Your task to perform on an android device: Do I have any events this weekend? Image 0: 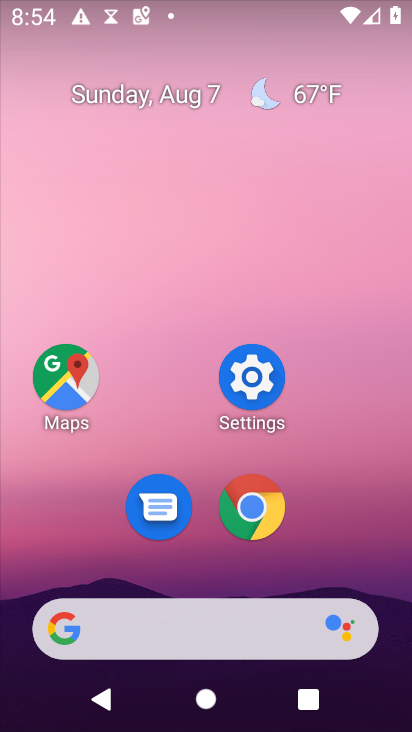
Step 0: drag from (202, 635) to (367, 42)
Your task to perform on an android device: Do I have any events this weekend? Image 1: 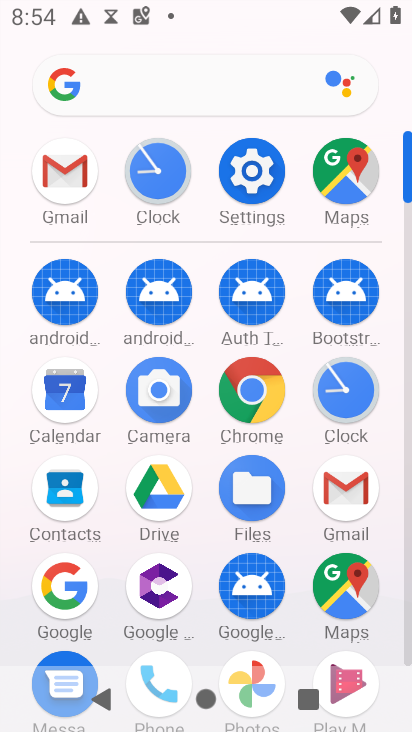
Step 1: click (65, 399)
Your task to perform on an android device: Do I have any events this weekend? Image 2: 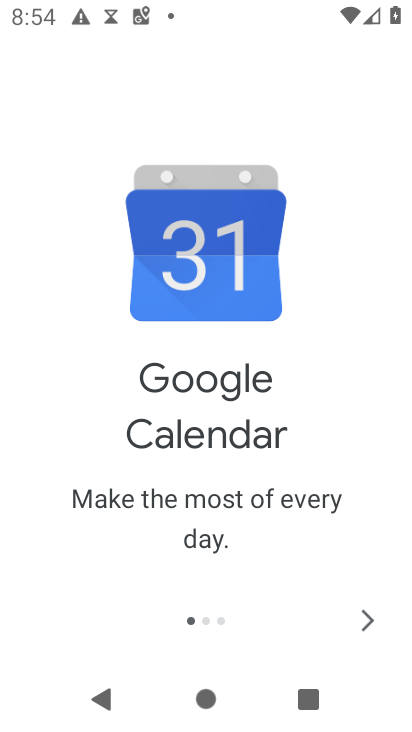
Step 2: click (365, 613)
Your task to perform on an android device: Do I have any events this weekend? Image 3: 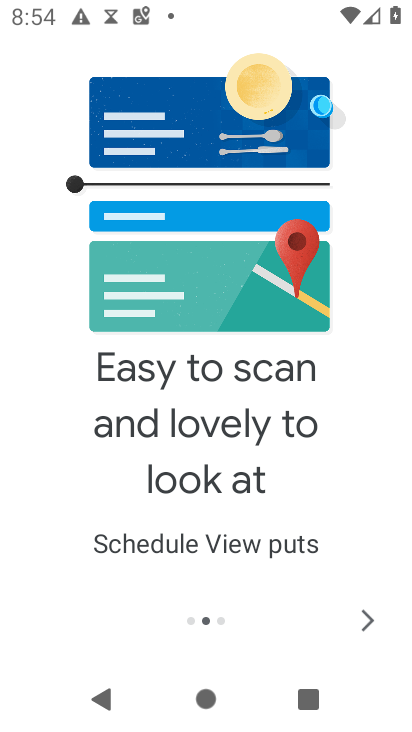
Step 3: click (365, 610)
Your task to perform on an android device: Do I have any events this weekend? Image 4: 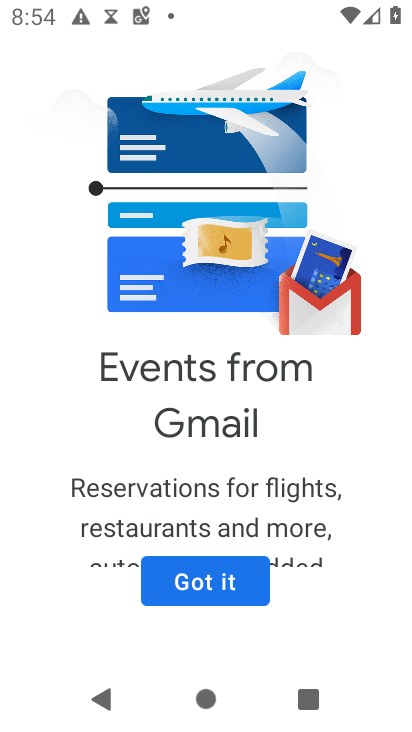
Step 4: click (238, 594)
Your task to perform on an android device: Do I have any events this weekend? Image 5: 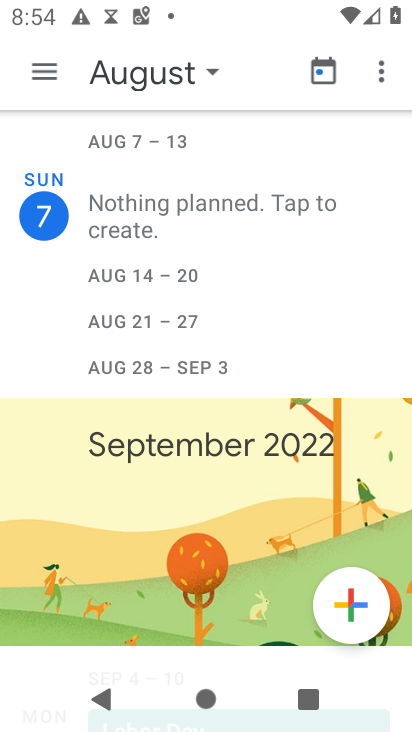
Step 5: click (134, 78)
Your task to perform on an android device: Do I have any events this weekend? Image 6: 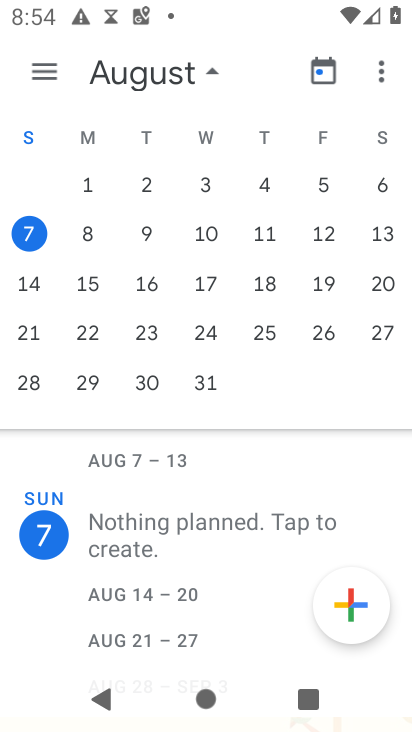
Step 6: click (381, 239)
Your task to perform on an android device: Do I have any events this weekend? Image 7: 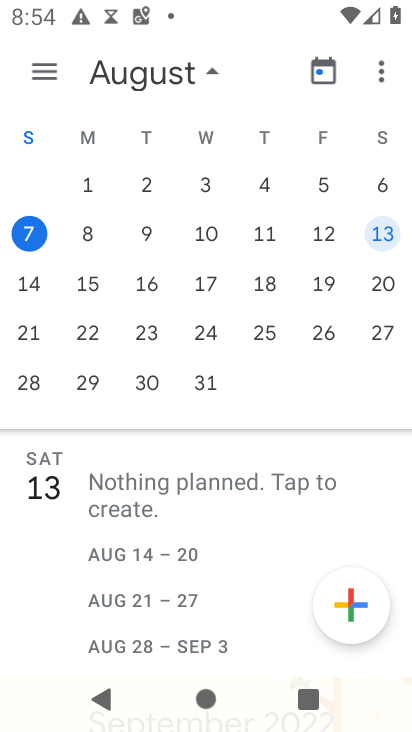
Step 7: click (54, 65)
Your task to perform on an android device: Do I have any events this weekend? Image 8: 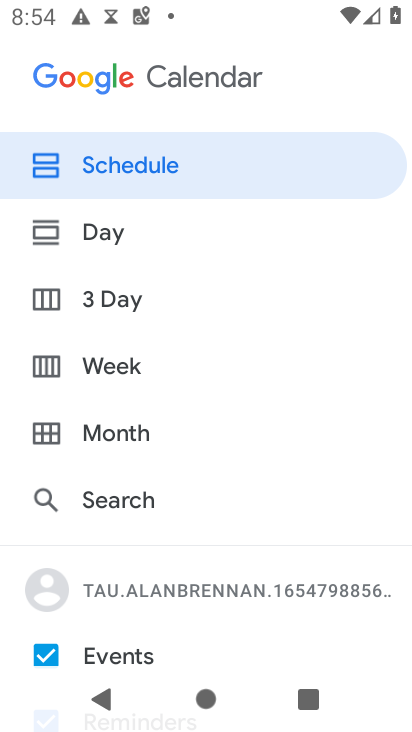
Step 8: click (113, 236)
Your task to perform on an android device: Do I have any events this weekend? Image 9: 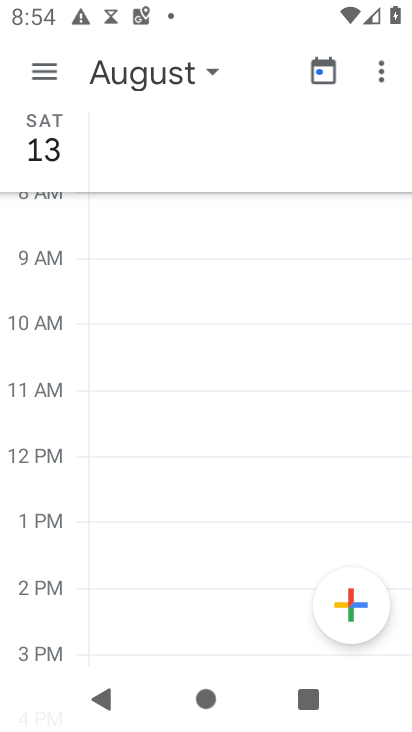
Step 9: click (58, 78)
Your task to perform on an android device: Do I have any events this weekend? Image 10: 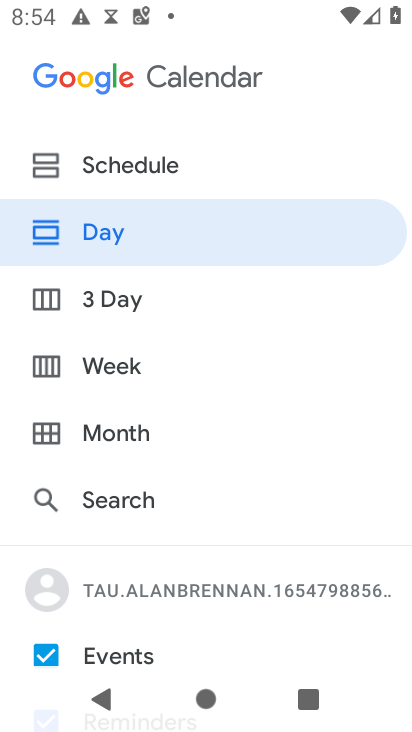
Step 10: click (158, 166)
Your task to perform on an android device: Do I have any events this weekend? Image 11: 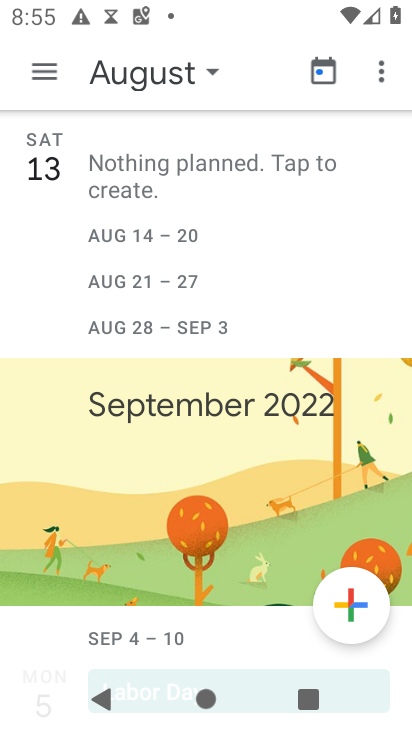
Step 11: task complete